Your task to perform on an android device: toggle airplane mode Image 0: 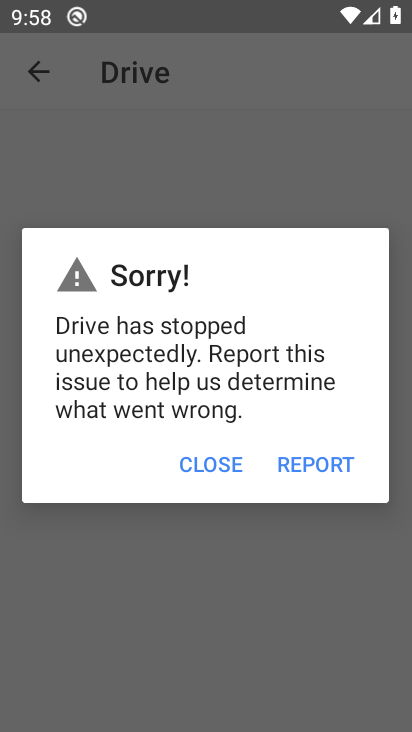
Step 0: press back button
Your task to perform on an android device: toggle airplane mode Image 1: 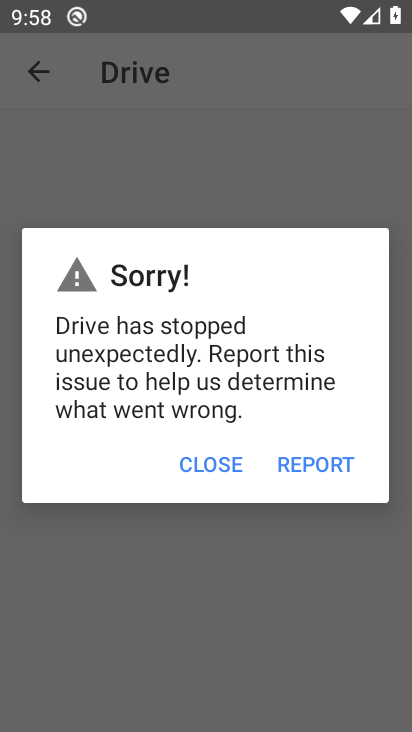
Step 1: press home button
Your task to perform on an android device: toggle airplane mode Image 2: 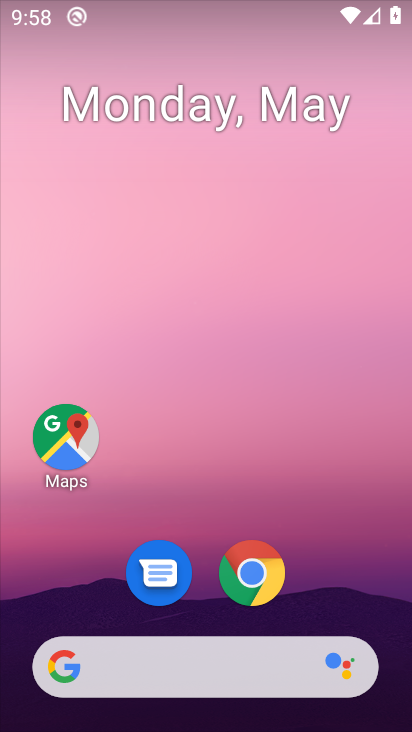
Step 2: drag from (359, 37) to (294, 523)
Your task to perform on an android device: toggle airplane mode Image 3: 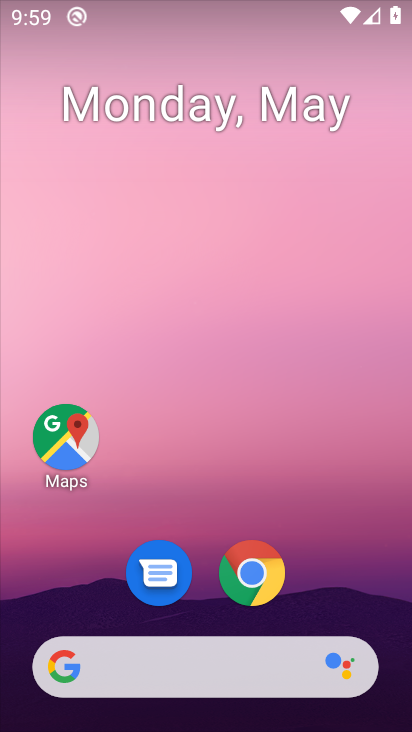
Step 3: drag from (366, 15) to (227, 544)
Your task to perform on an android device: toggle airplane mode Image 4: 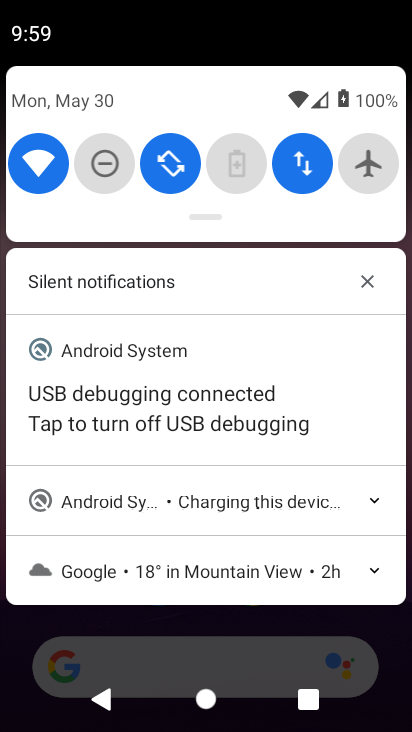
Step 4: click (367, 166)
Your task to perform on an android device: toggle airplane mode Image 5: 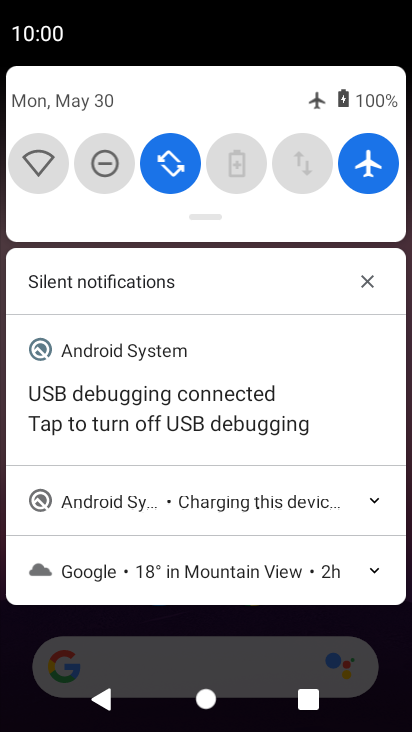
Step 5: task complete